Your task to perform on an android device: Add amazon basics triple a to the cart on costco.com, then select checkout. Image 0: 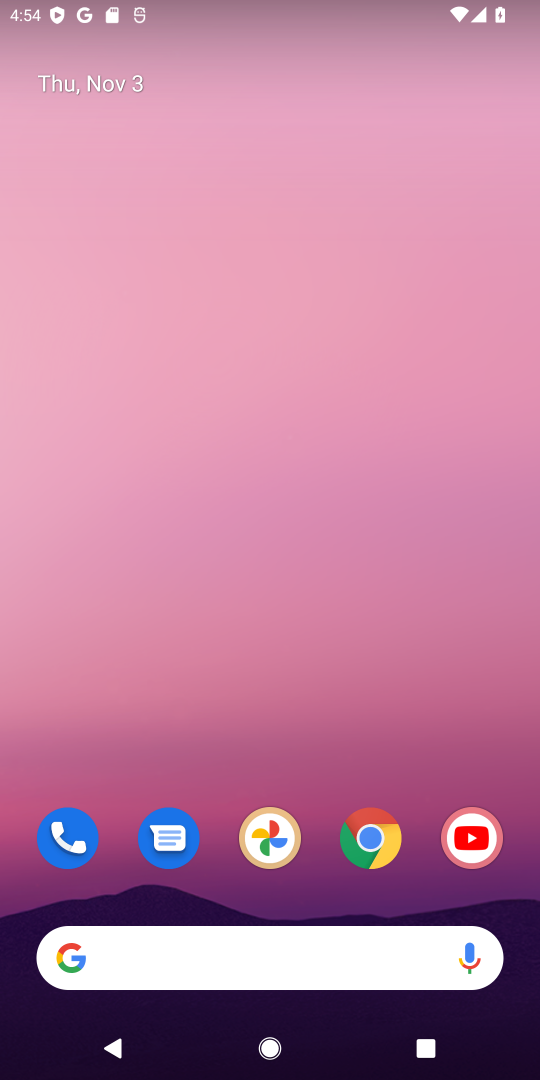
Step 0: click (364, 850)
Your task to perform on an android device: Add amazon basics triple a to the cart on costco.com, then select checkout. Image 1: 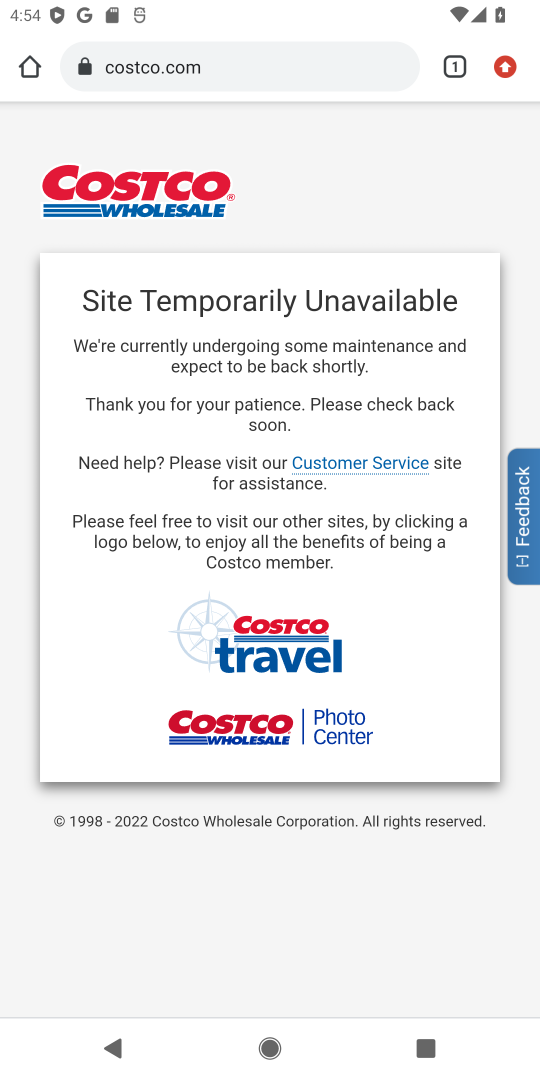
Step 1: click (198, 58)
Your task to perform on an android device: Add amazon basics triple a to the cart on costco.com, then select checkout. Image 2: 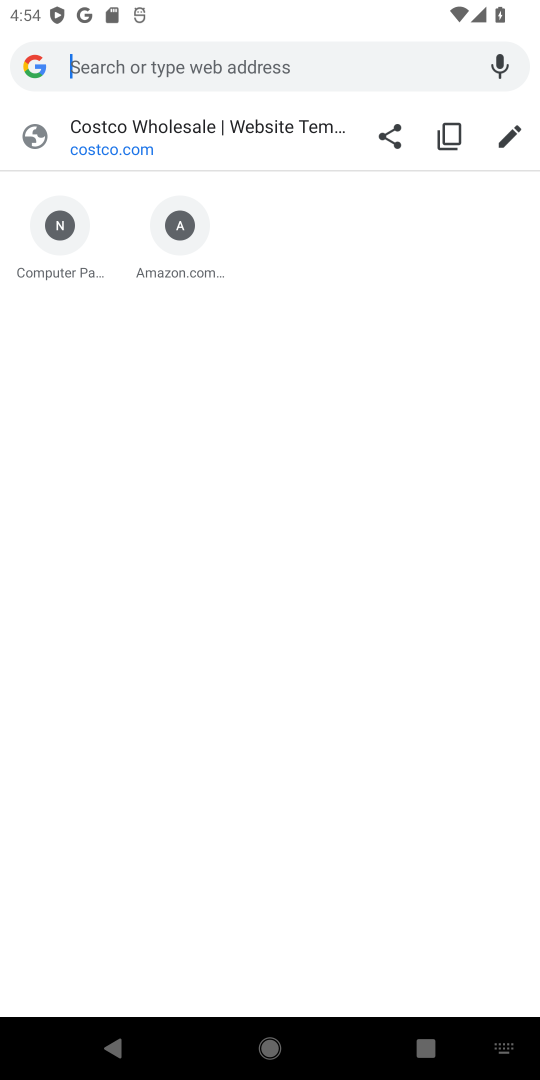
Step 2: click (204, 133)
Your task to perform on an android device: Add amazon basics triple a to the cart on costco.com, then select checkout. Image 3: 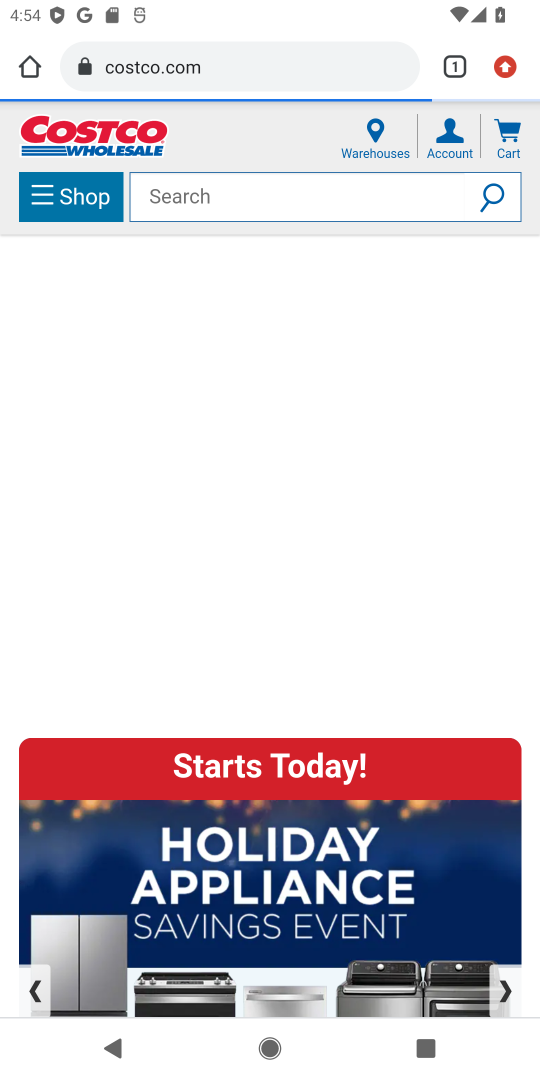
Step 3: click (259, 198)
Your task to perform on an android device: Add amazon basics triple a to the cart on costco.com, then select checkout. Image 4: 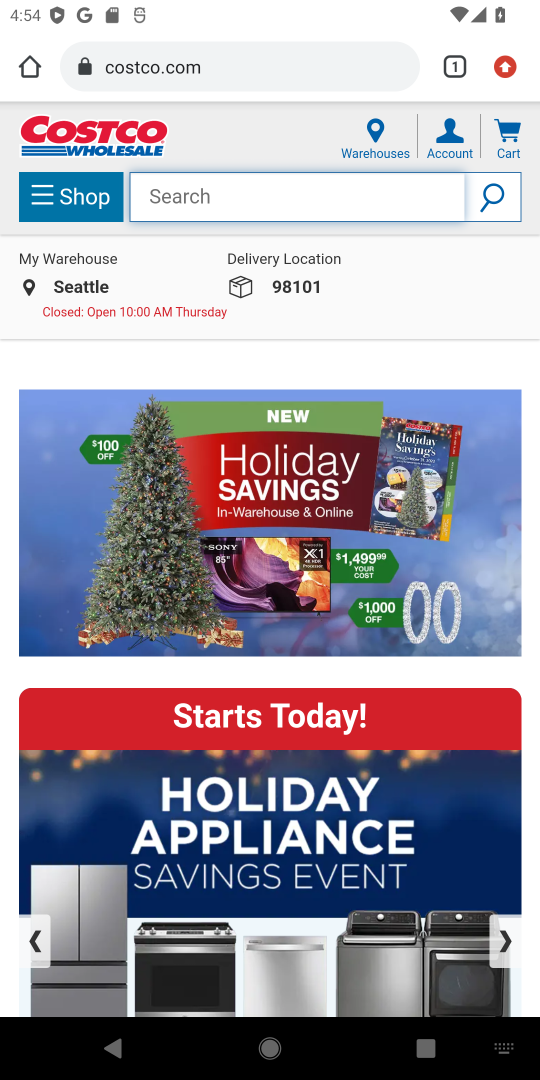
Step 4: type "amazon triple a"
Your task to perform on an android device: Add amazon basics triple a to the cart on costco.com, then select checkout. Image 5: 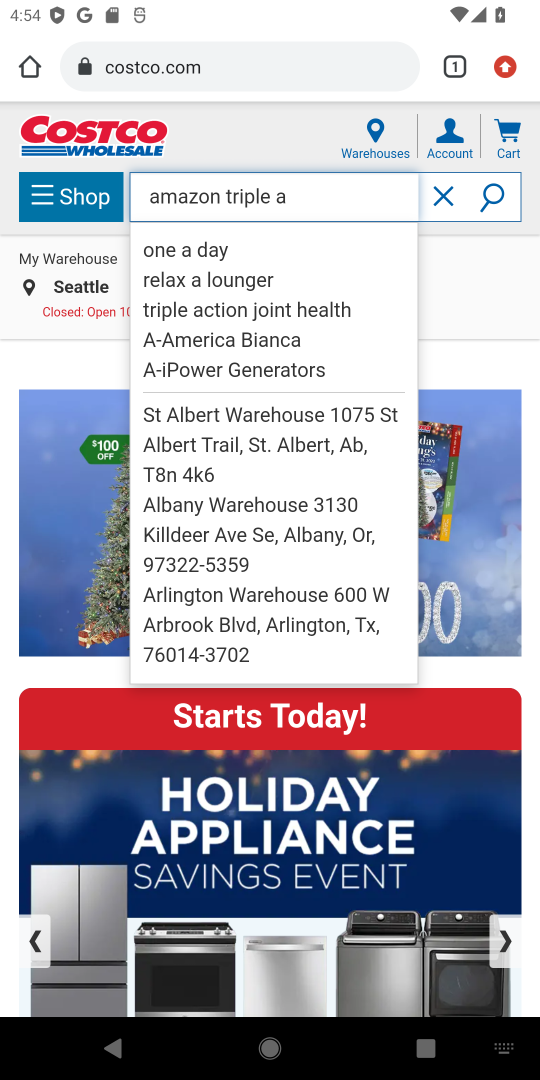
Step 5: click (184, 253)
Your task to perform on an android device: Add amazon basics triple a to the cart on costco.com, then select checkout. Image 6: 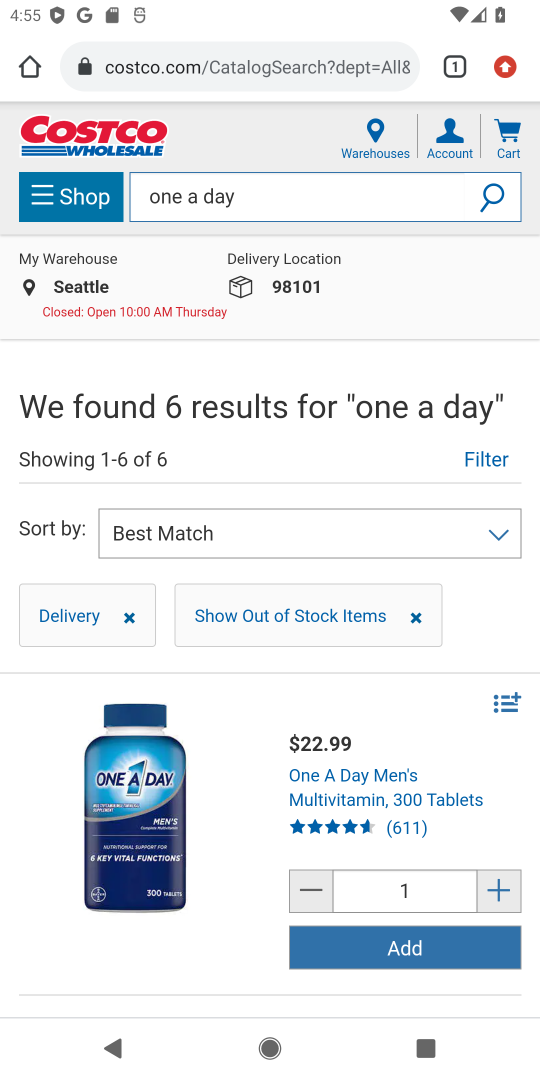
Step 6: click (411, 952)
Your task to perform on an android device: Add amazon basics triple a to the cart on costco.com, then select checkout. Image 7: 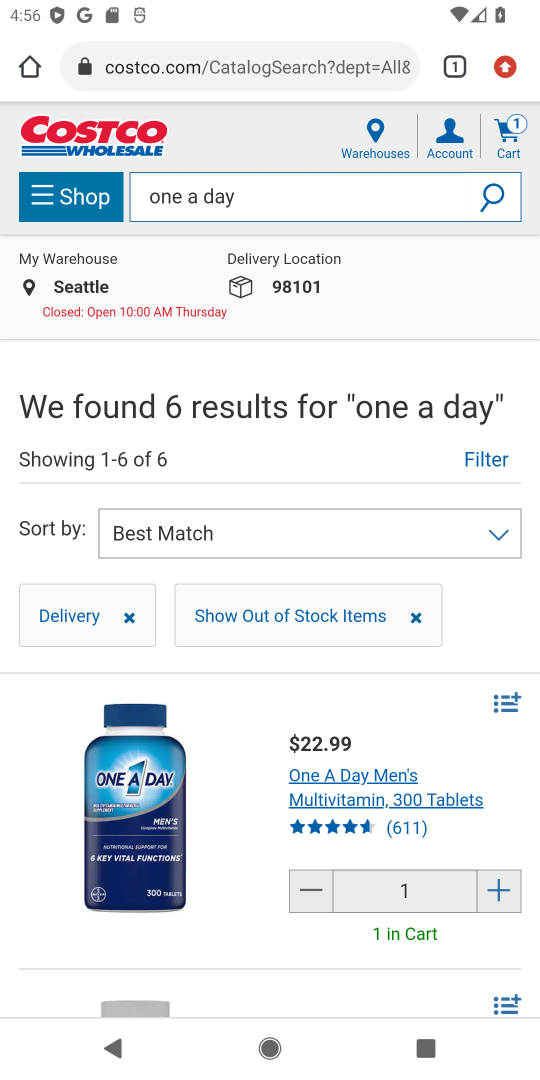
Step 7: task complete